Your task to perform on an android device: toggle pop-ups in chrome Image 0: 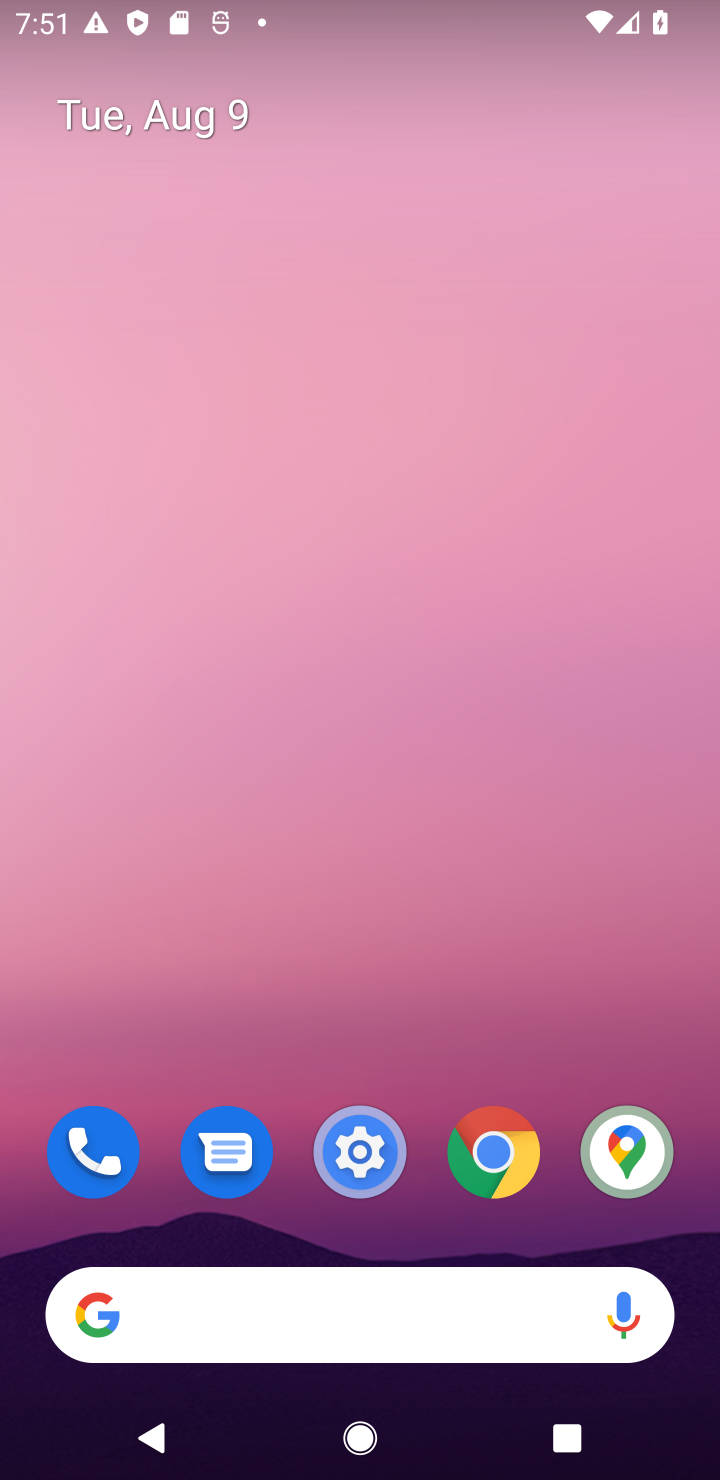
Step 0: click (521, 1169)
Your task to perform on an android device: toggle pop-ups in chrome Image 1: 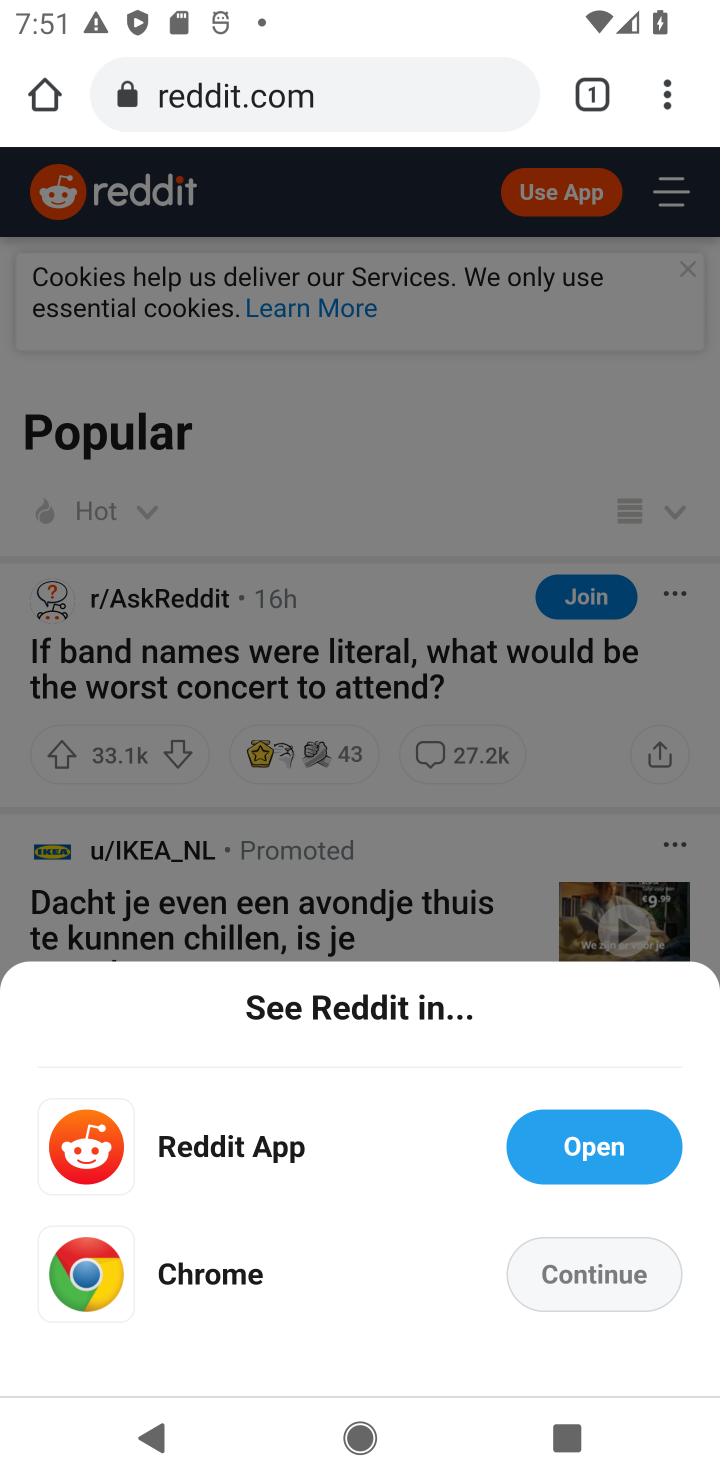
Step 1: click (681, 103)
Your task to perform on an android device: toggle pop-ups in chrome Image 2: 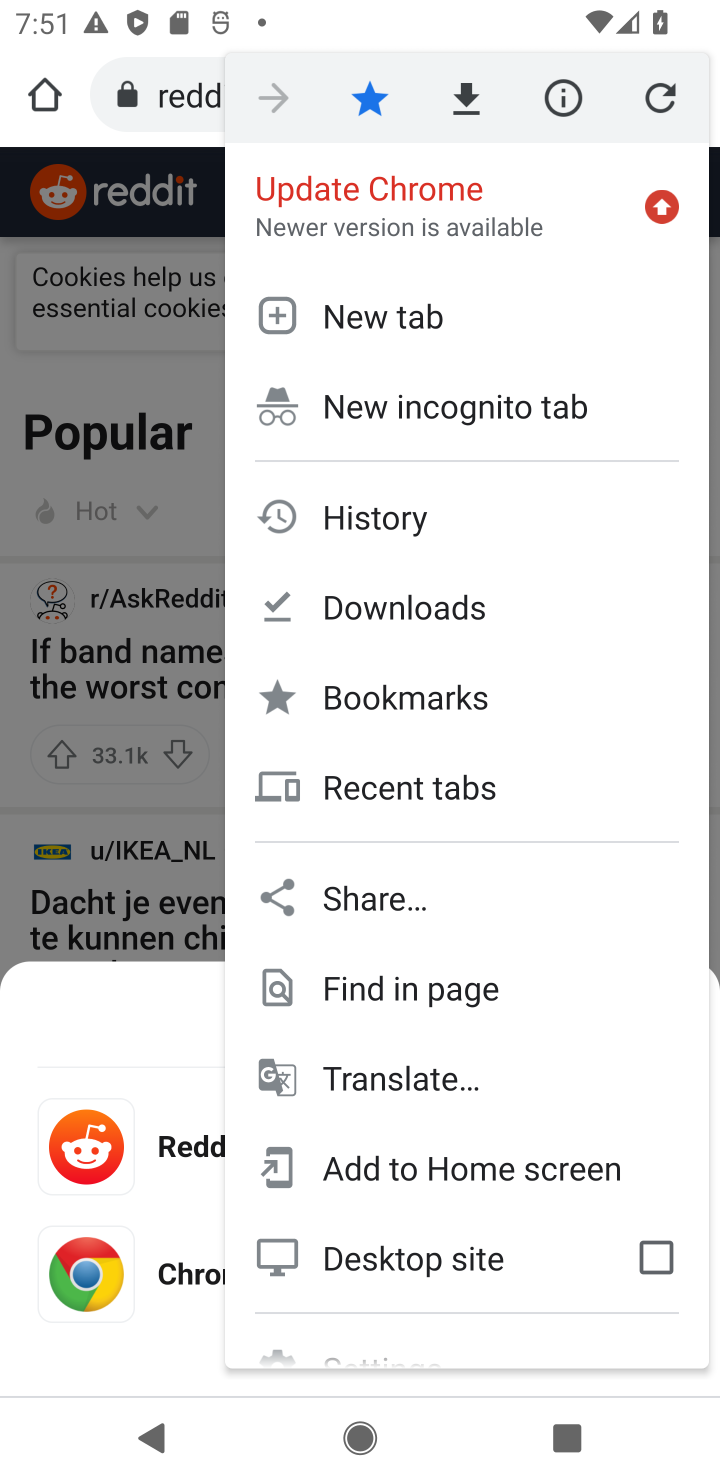
Step 2: drag from (604, 741) to (589, 260)
Your task to perform on an android device: toggle pop-ups in chrome Image 3: 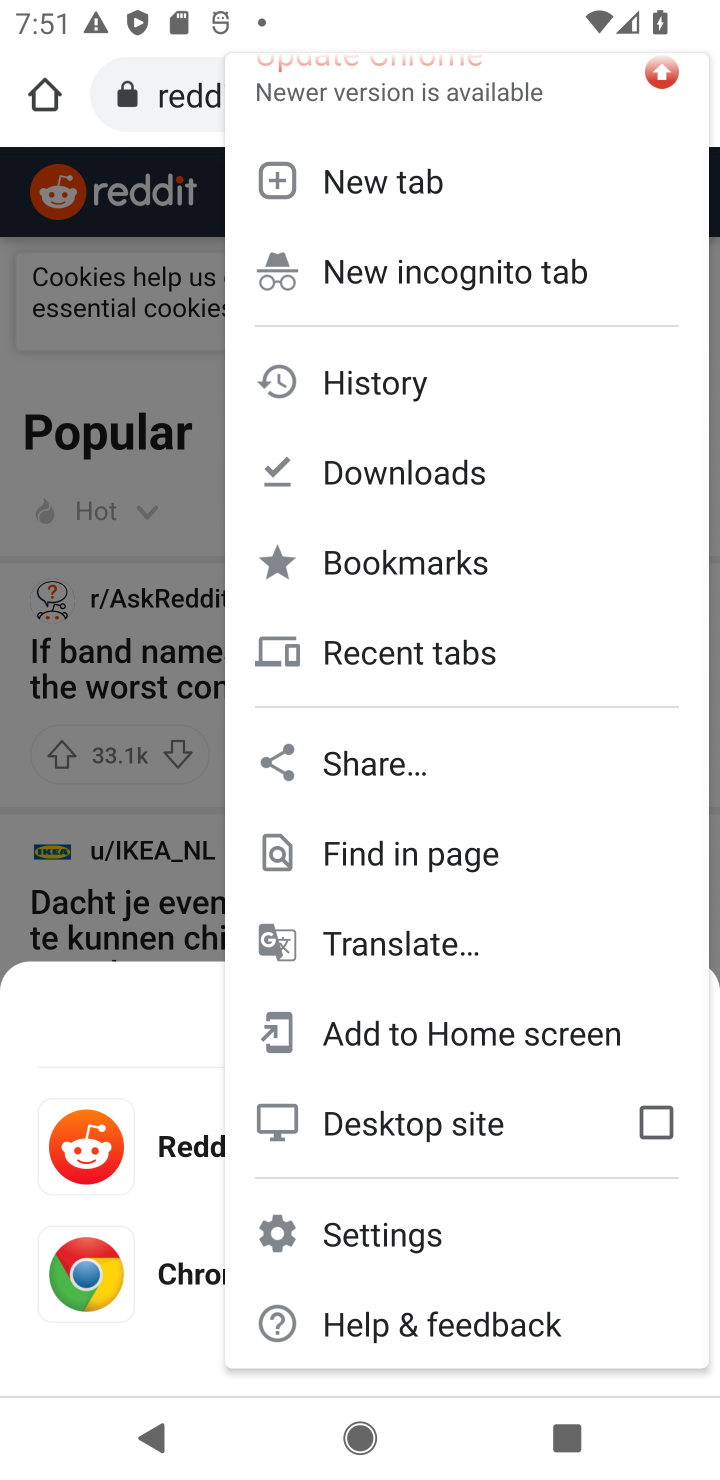
Step 3: click (439, 1240)
Your task to perform on an android device: toggle pop-ups in chrome Image 4: 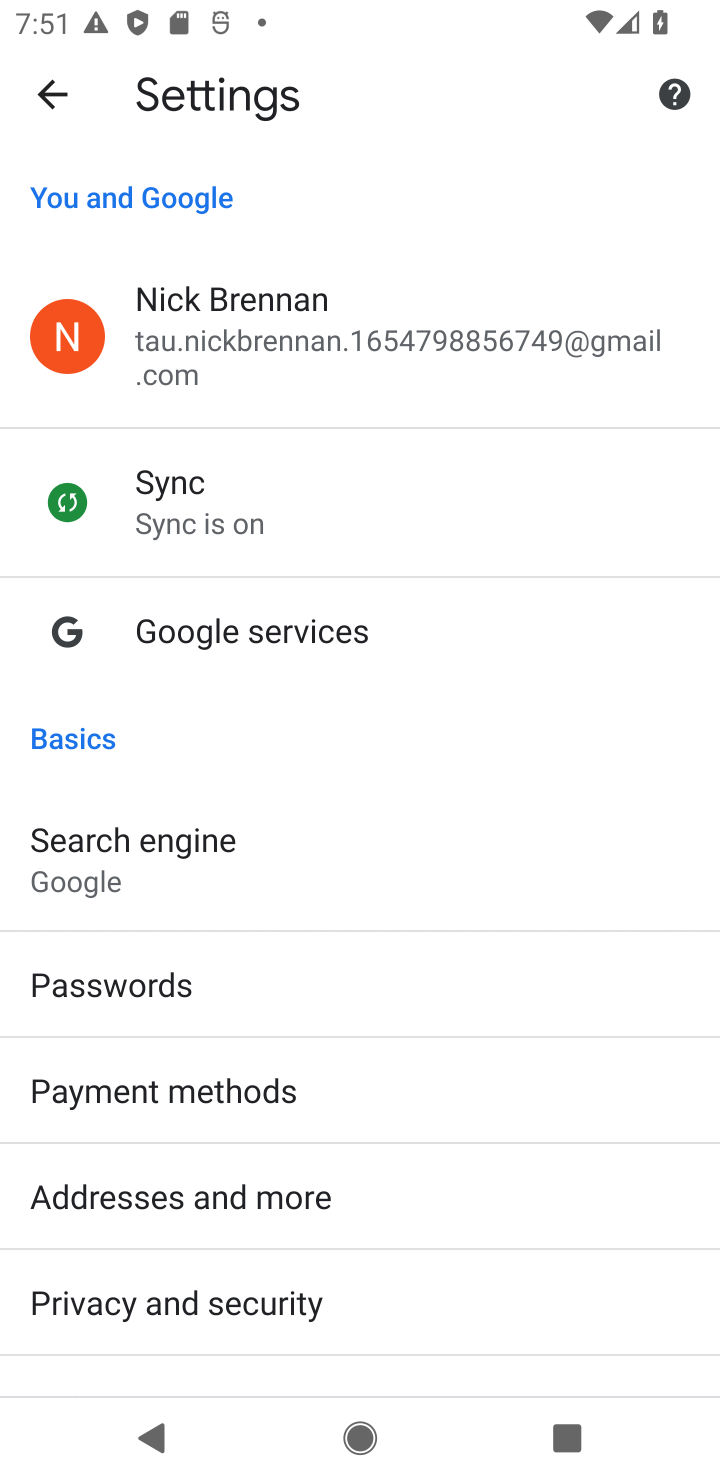
Step 4: drag from (394, 1263) to (655, 170)
Your task to perform on an android device: toggle pop-ups in chrome Image 5: 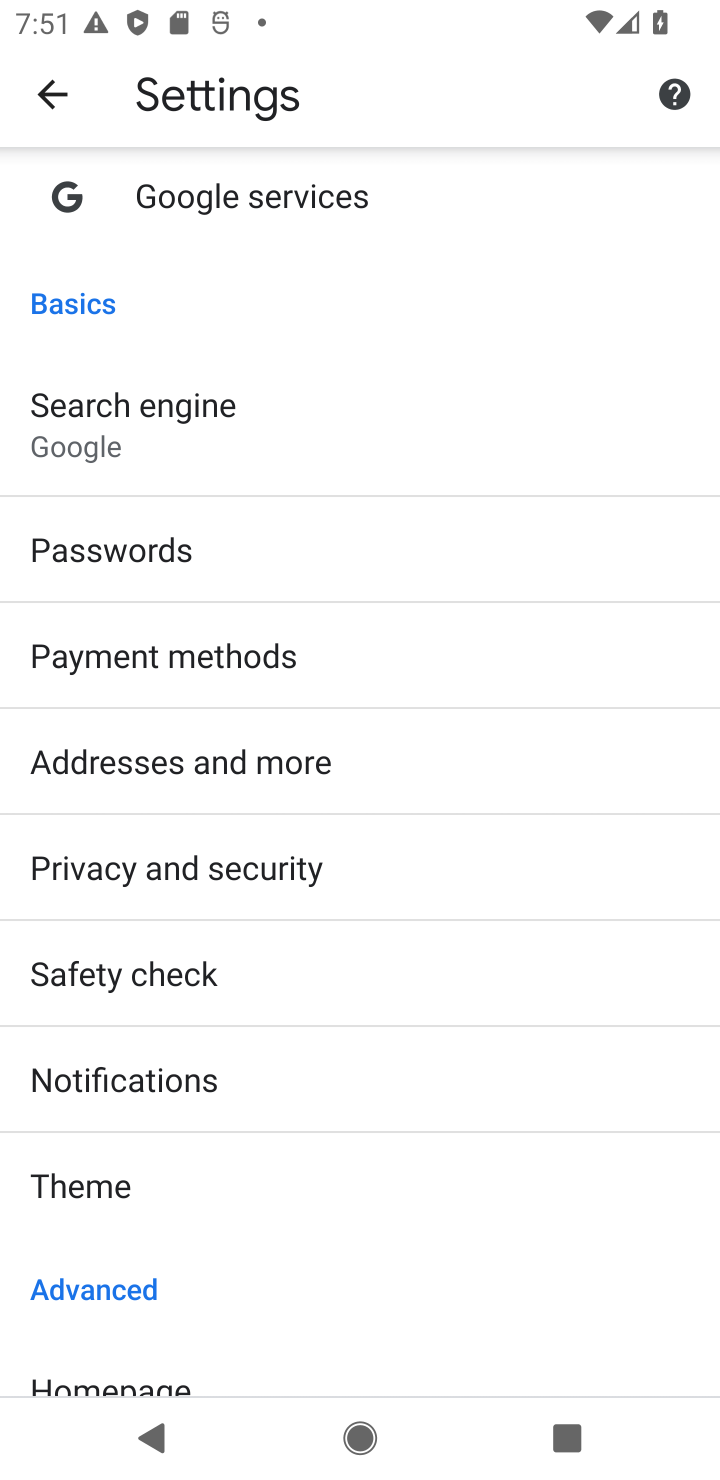
Step 5: drag from (248, 1267) to (301, 241)
Your task to perform on an android device: toggle pop-ups in chrome Image 6: 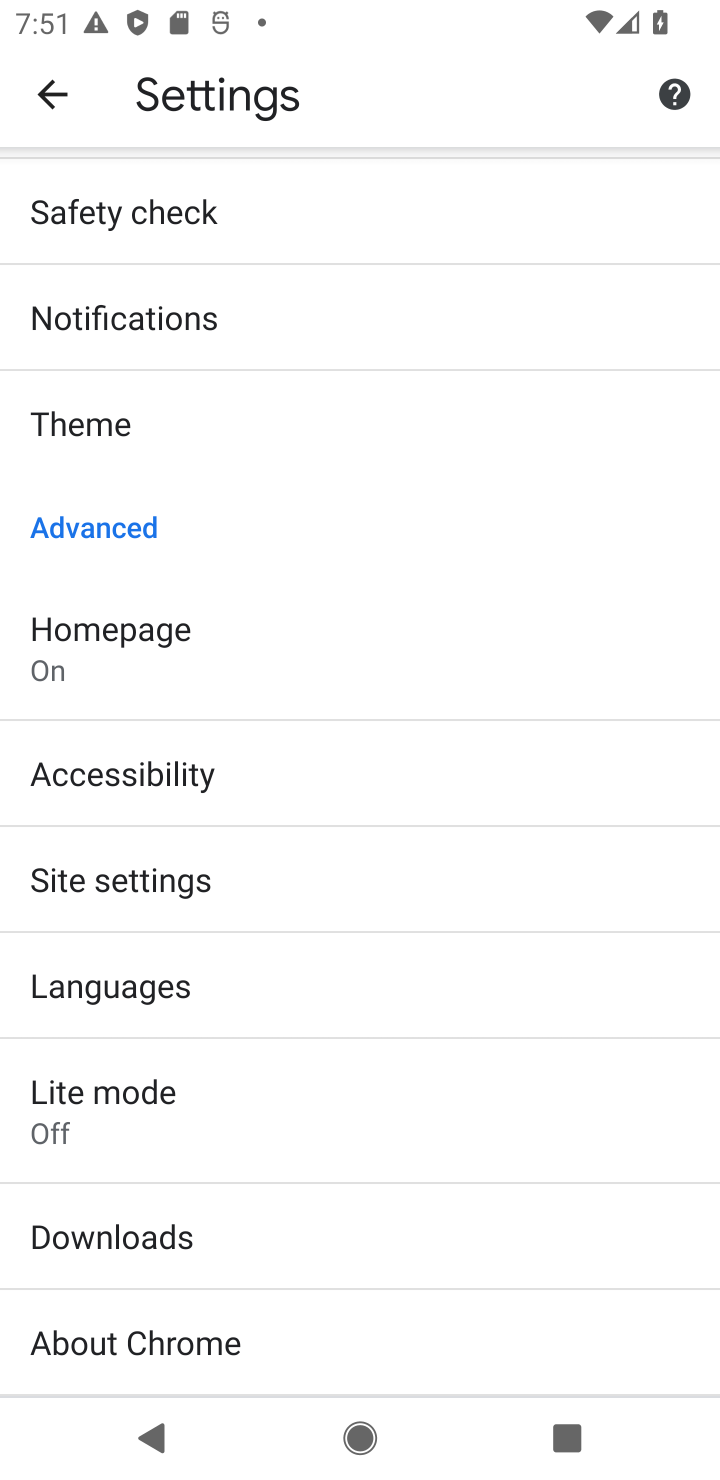
Step 6: click (178, 900)
Your task to perform on an android device: toggle pop-ups in chrome Image 7: 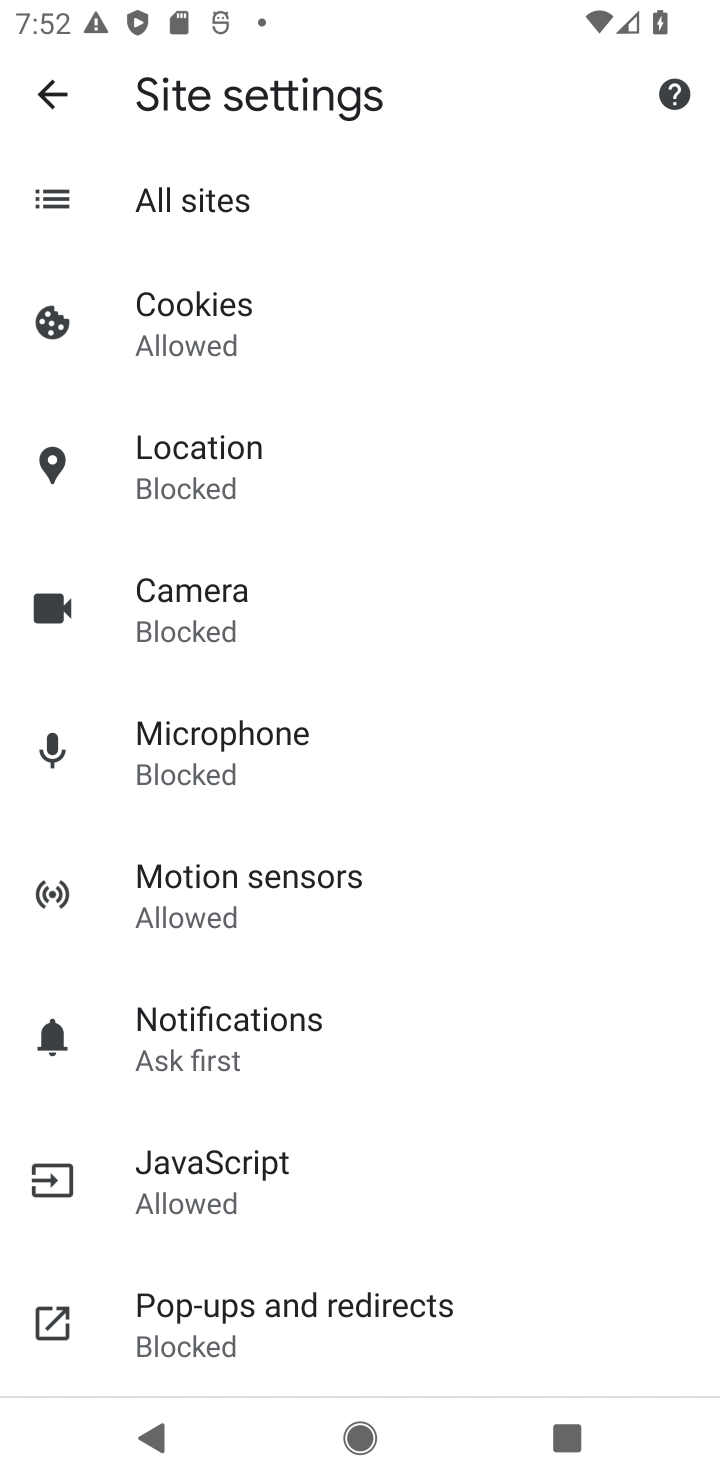
Step 7: click (326, 1316)
Your task to perform on an android device: toggle pop-ups in chrome Image 8: 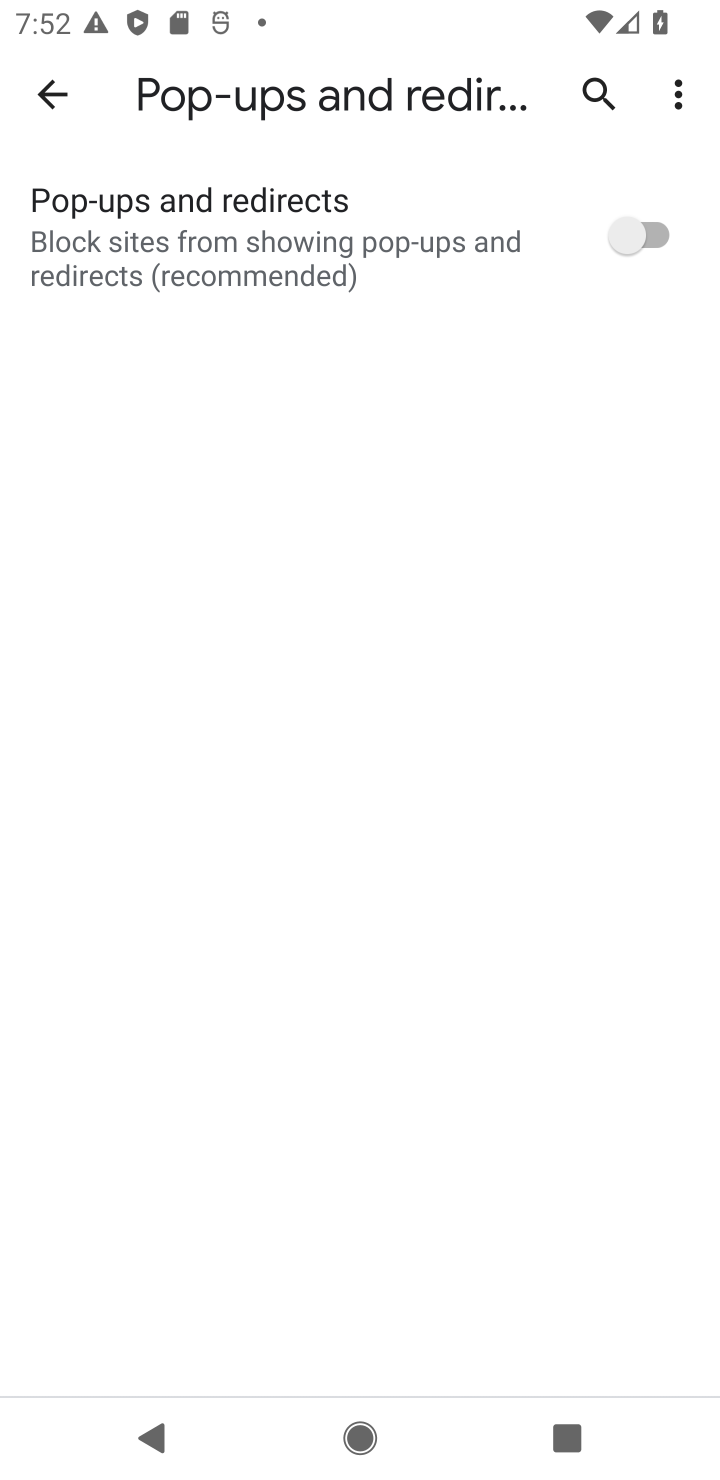
Step 8: click (669, 249)
Your task to perform on an android device: toggle pop-ups in chrome Image 9: 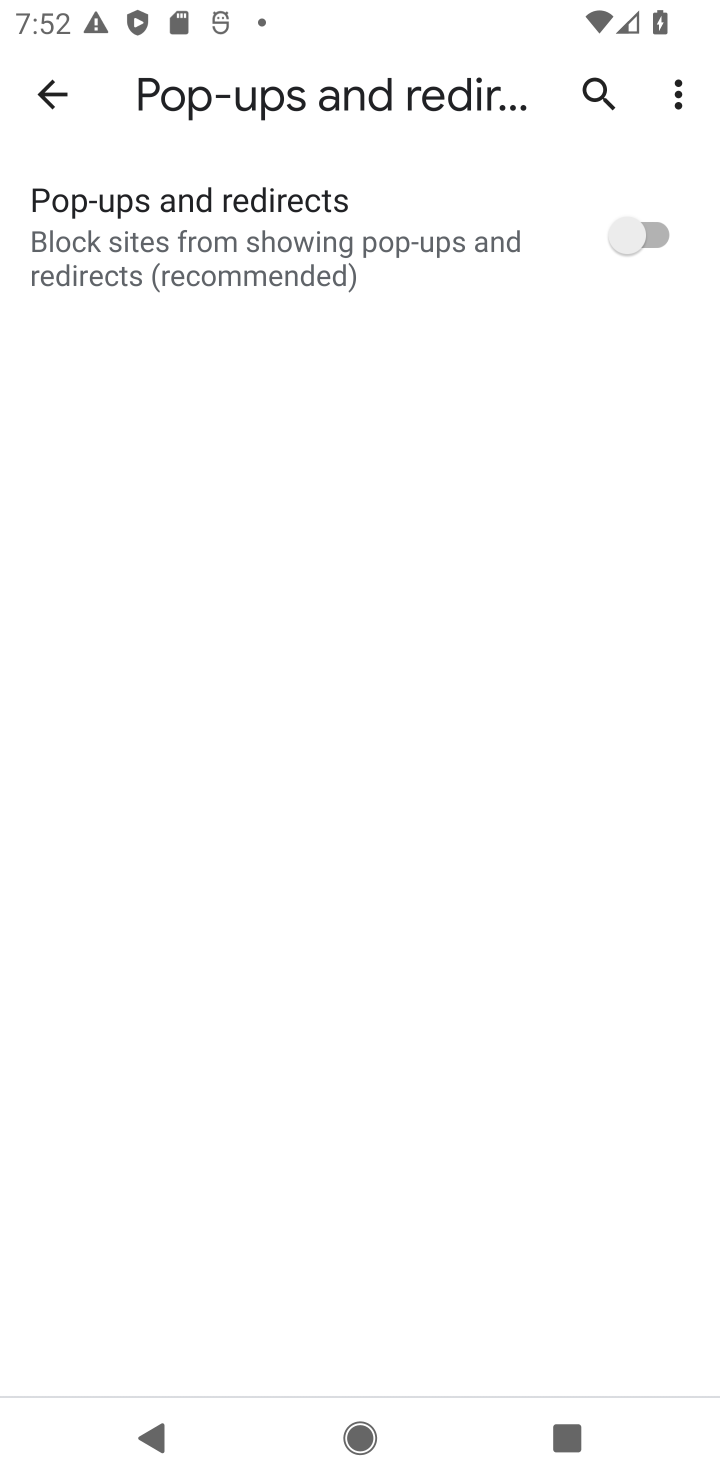
Step 9: click (669, 249)
Your task to perform on an android device: toggle pop-ups in chrome Image 10: 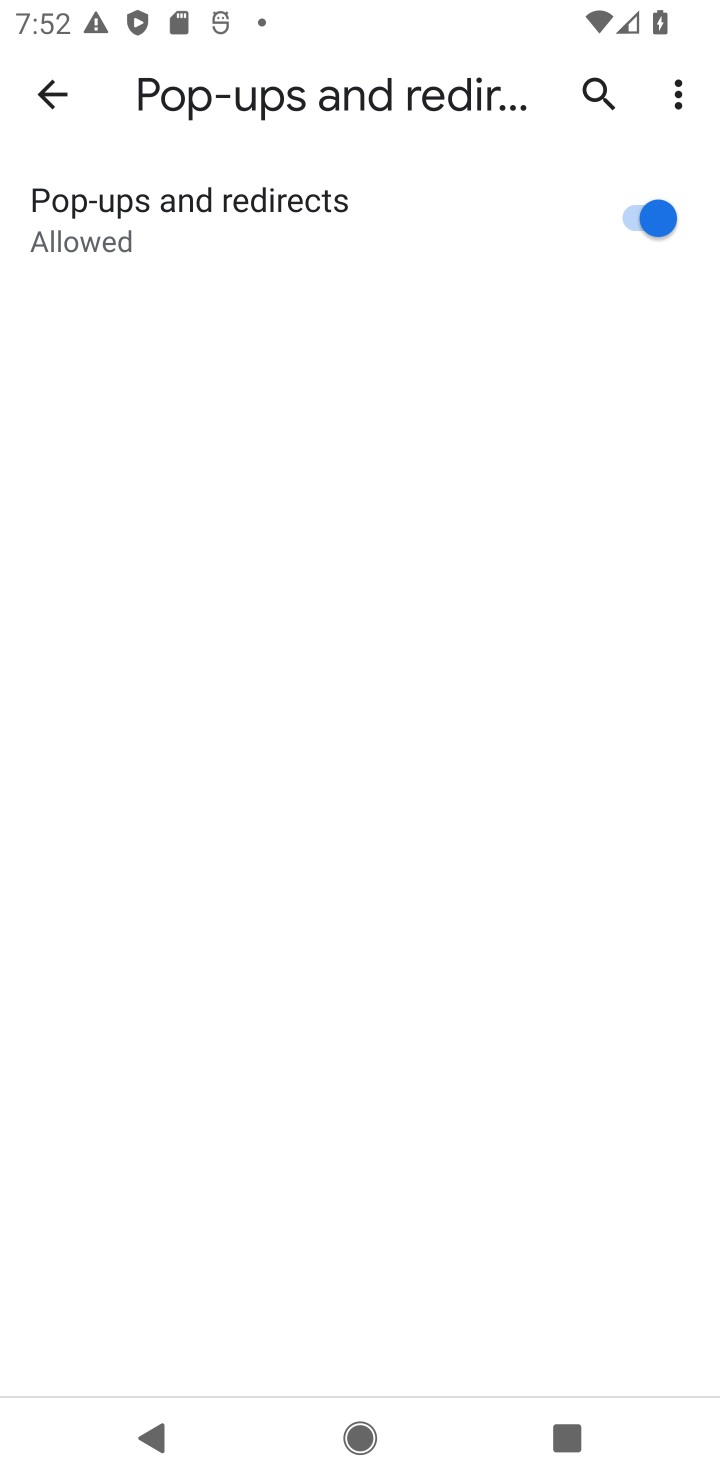
Step 10: click (669, 249)
Your task to perform on an android device: toggle pop-ups in chrome Image 11: 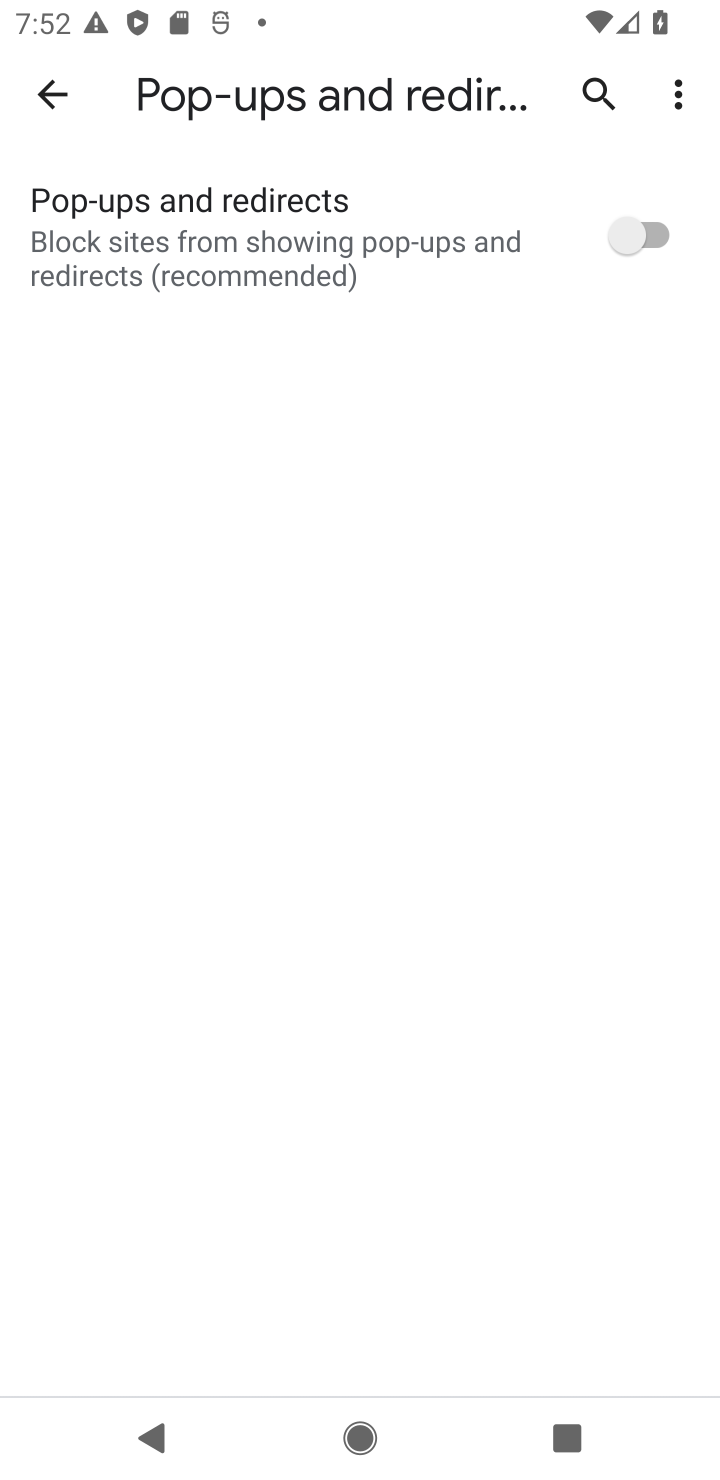
Step 11: click (669, 249)
Your task to perform on an android device: toggle pop-ups in chrome Image 12: 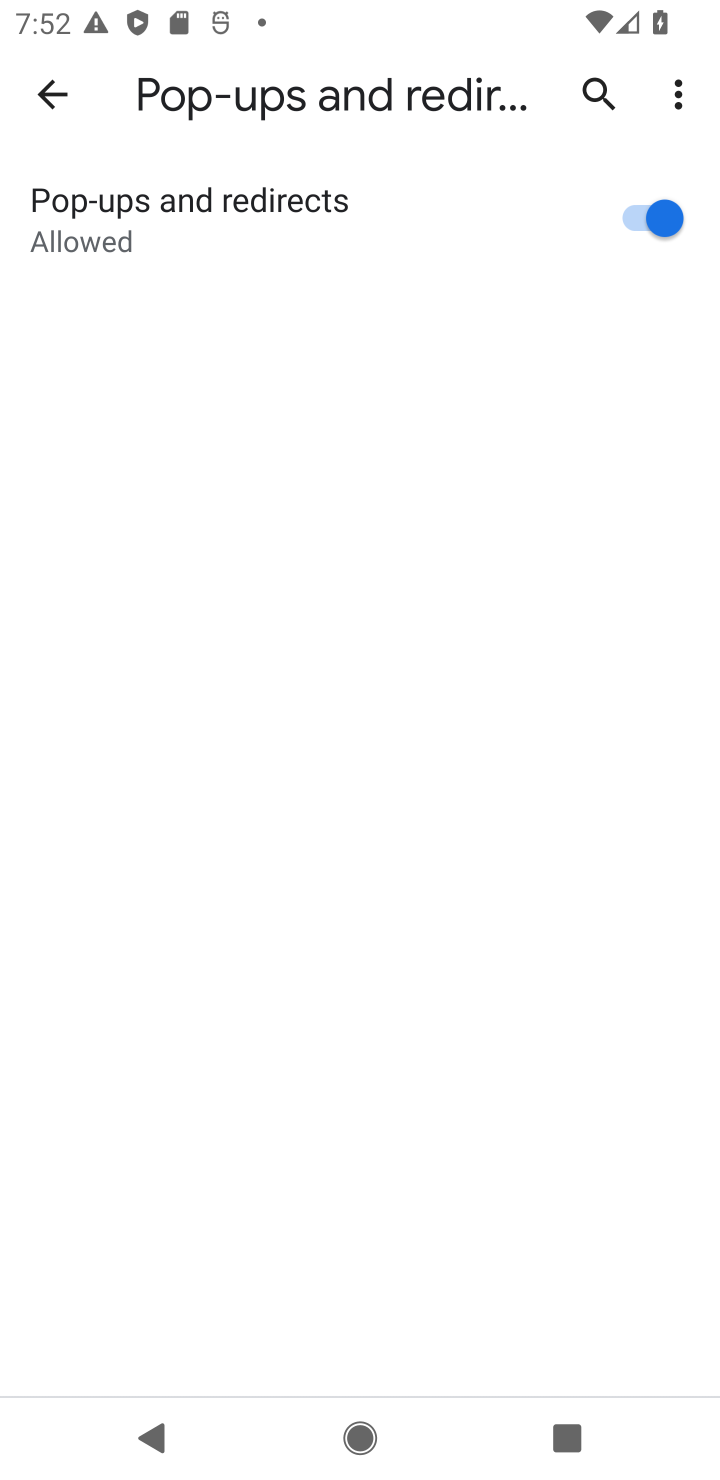
Step 12: click (669, 249)
Your task to perform on an android device: toggle pop-ups in chrome Image 13: 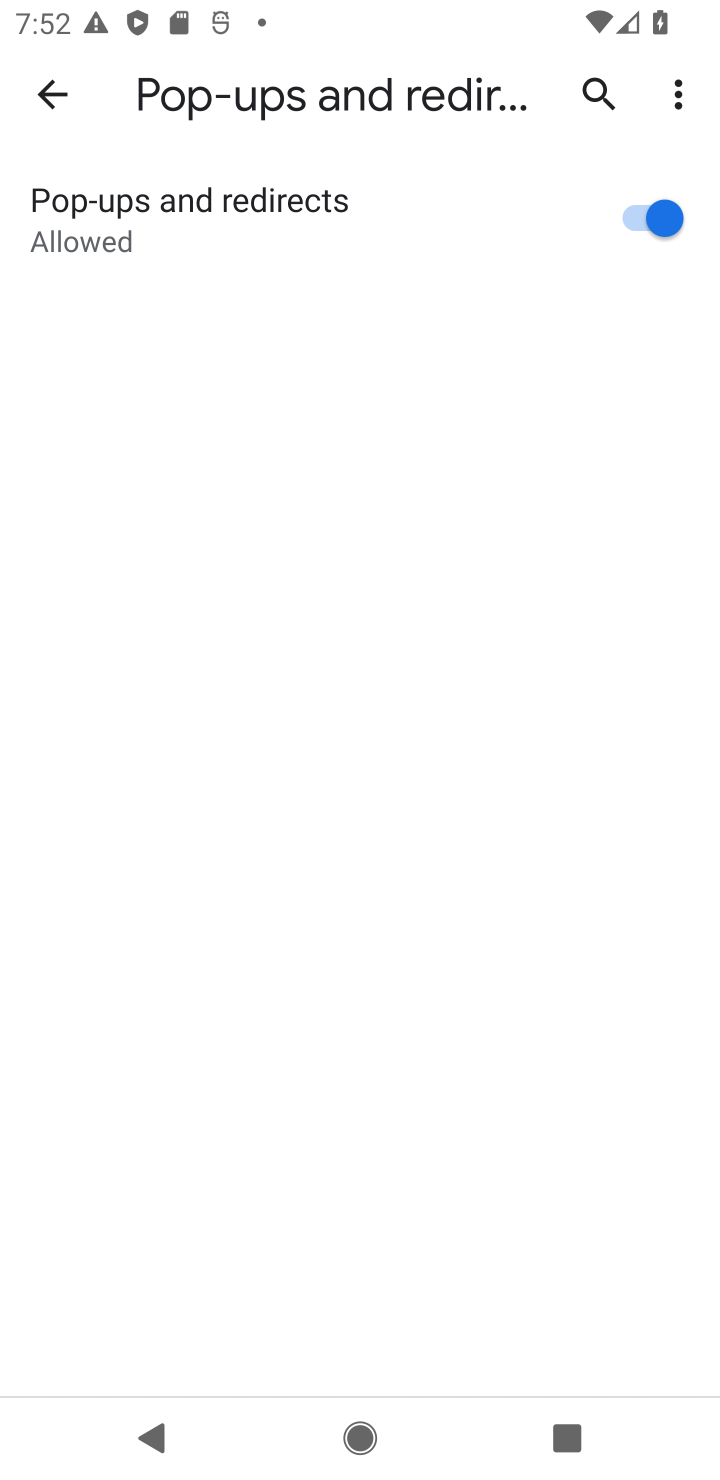
Step 13: click (669, 249)
Your task to perform on an android device: toggle pop-ups in chrome Image 14: 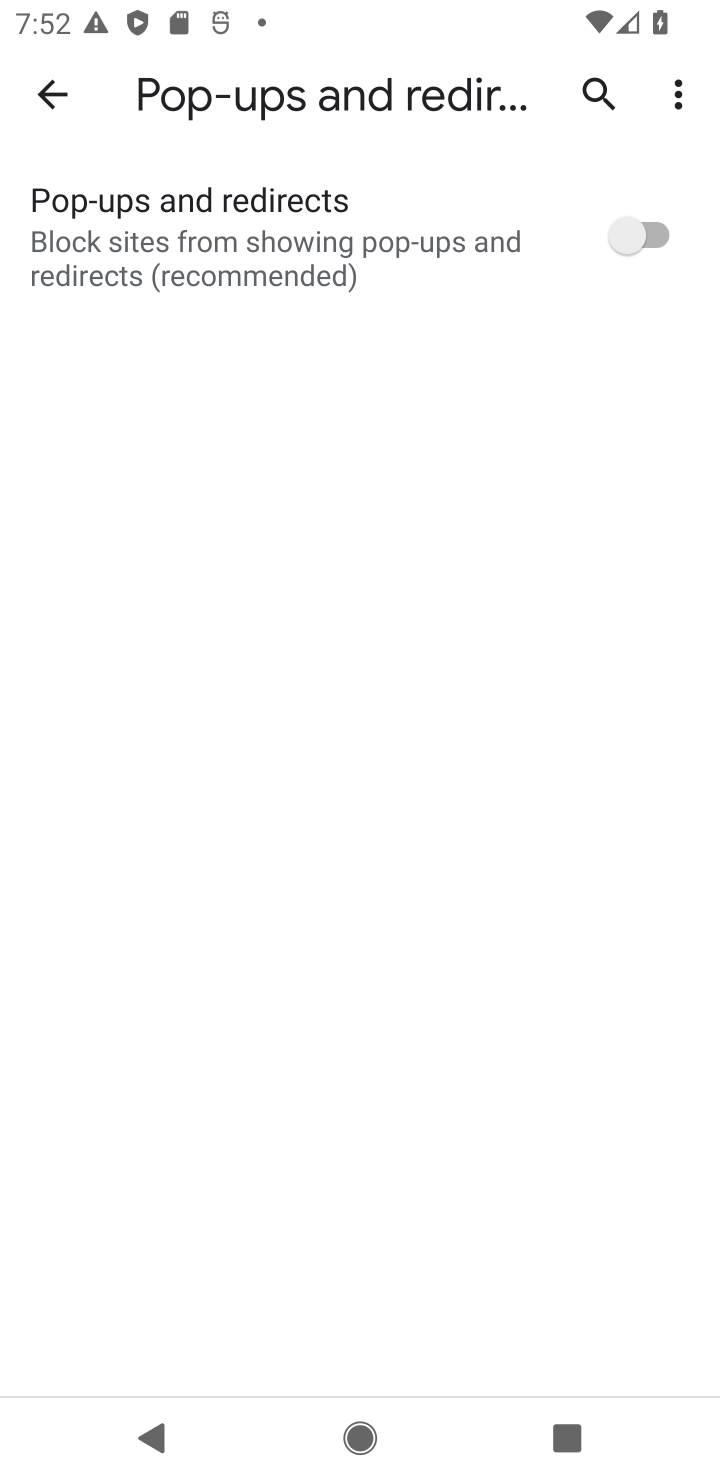
Step 14: task complete